Your task to perform on an android device: move an email to a new category in the gmail app Image 0: 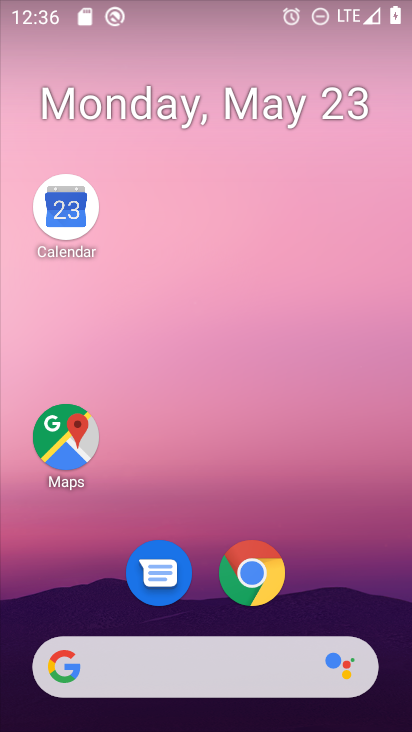
Step 0: drag from (326, 618) to (409, 166)
Your task to perform on an android device: move an email to a new category in the gmail app Image 1: 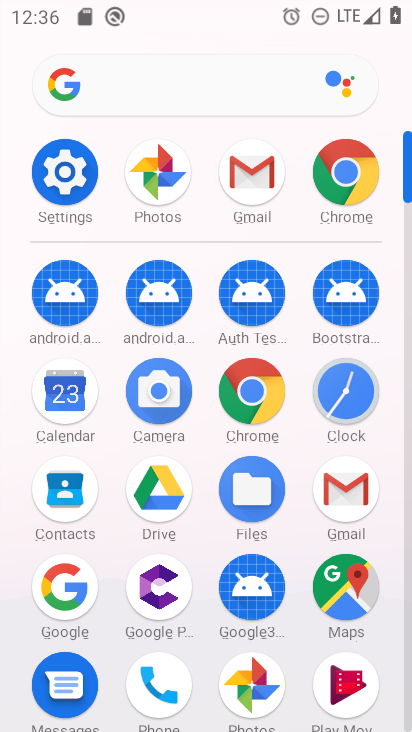
Step 1: click (341, 489)
Your task to perform on an android device: move an email to a new category in the gmail app Image 2: 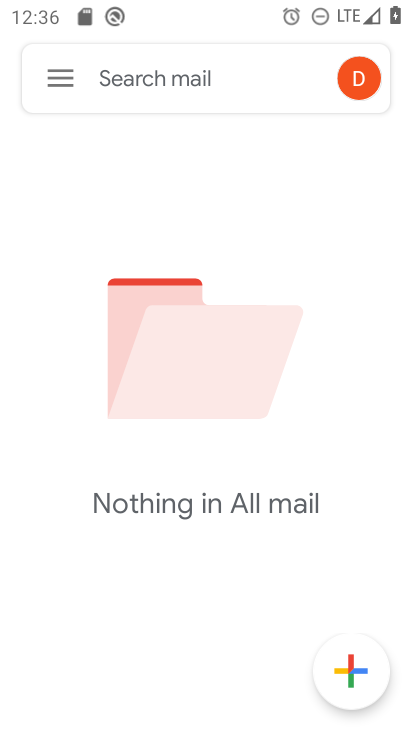
Step 2: task complete